Your task to perform on an android device: Search for 24"x36" picture frame on Home Depot. Image 0: 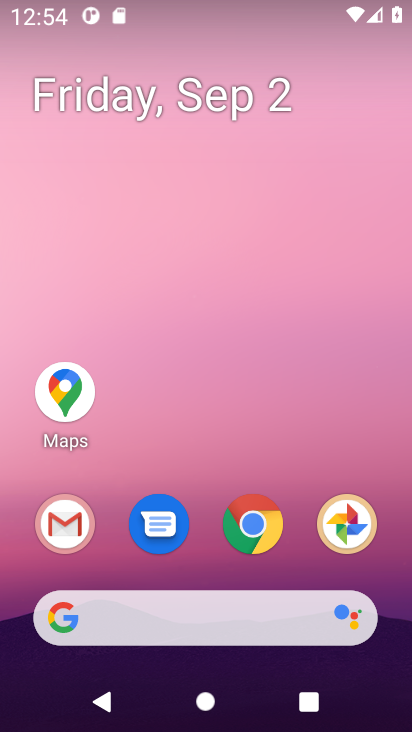
Step 0: press home button
Your task to perform on an android device: Search for 24"x36" picture frame on Home Depot. Image 1: 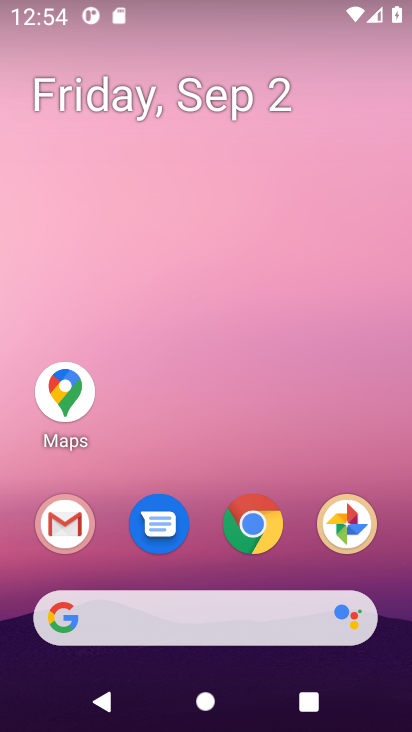
Step 1: click (296, 606)
Your task to perform on an android device: Search for 24"x36" picture frame on Home Depot. Image 2: 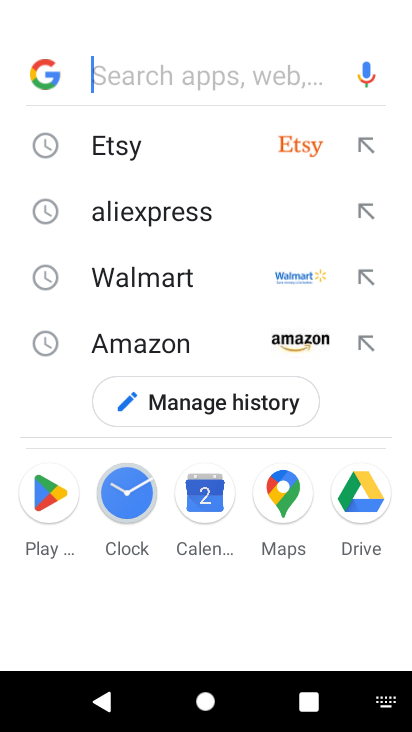
Step 2: press enter
Your task to perform on an android device: Search for 24"x36" picture frame on Home Depot. Image 3: 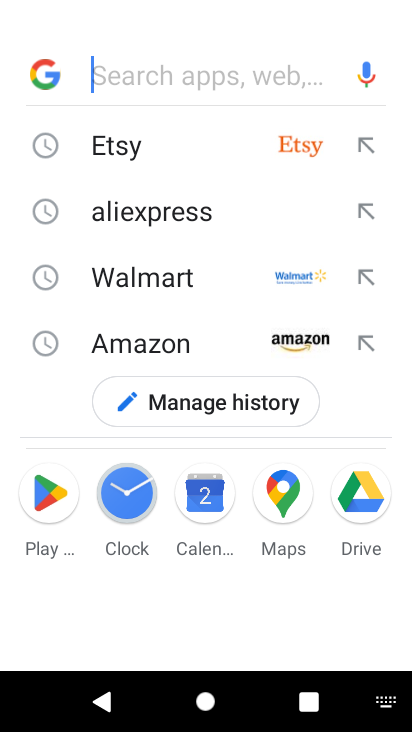
Step 3: type "home depotg"
Your task to perform on an android device: Search for 24"x36" picture frame on Home Depot. Image 4: 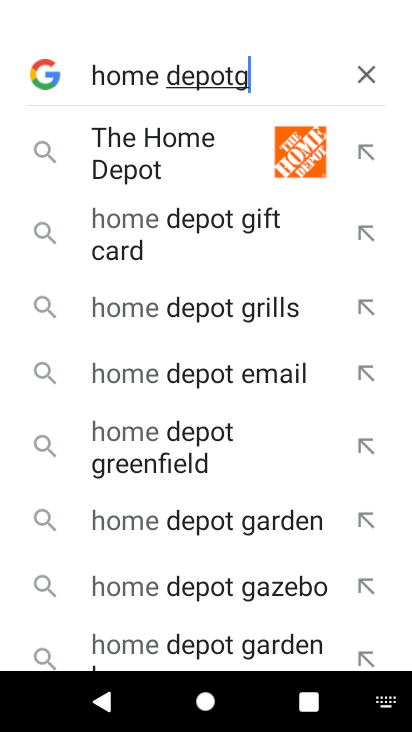
Step 4: click (167, 152)
Your task to perform on an android device: Search for 24"x36" picture frame on Home Depot. Image 5: 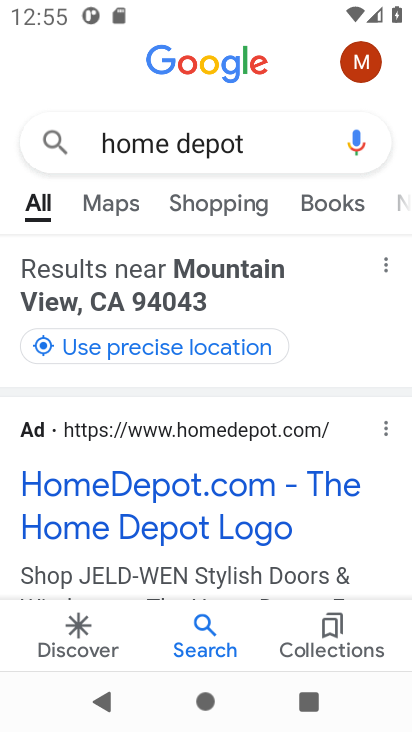
Step 5: click (163, 499)
Your task to perform on an android device: Search for 24"x36" picture frame on Home Depot. Image 6: 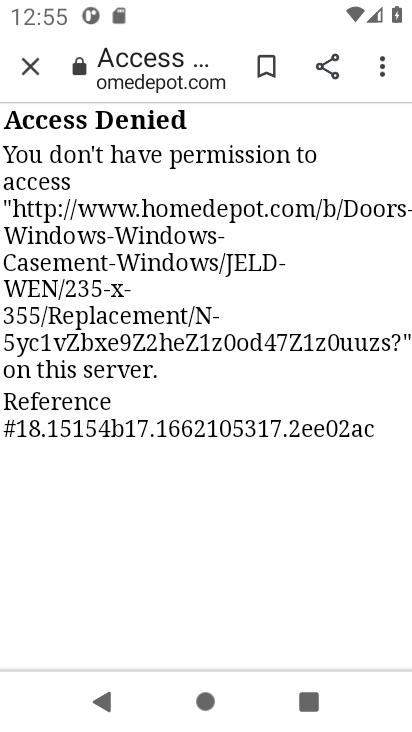
Step 6: task complete